Your task to perform on an android device: install app "McDonald's" Image 0: 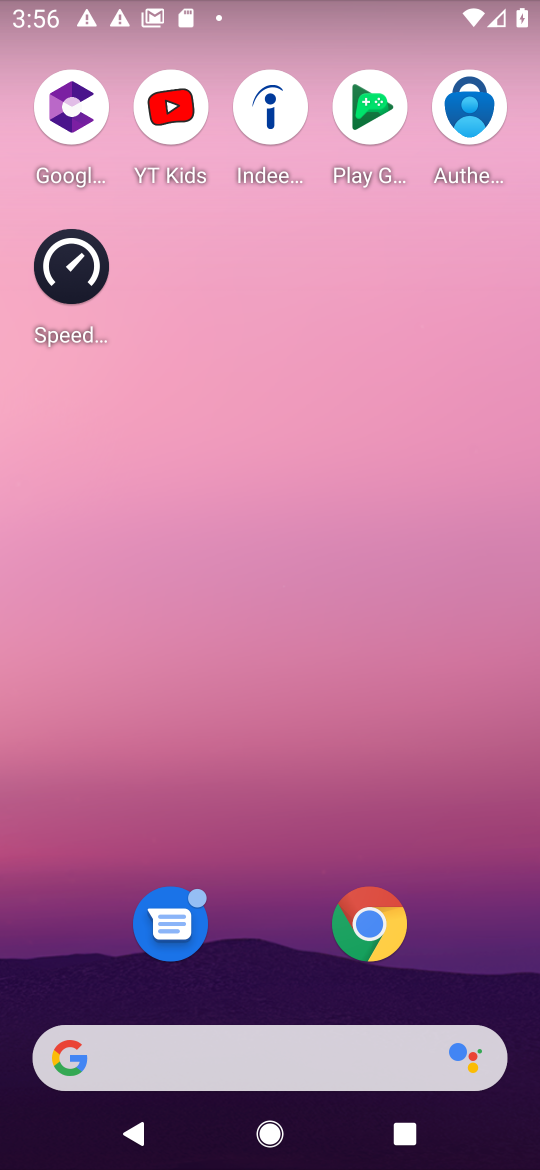
Step 0: press home button
Your task to perform on an android device: install app "McDonald's" Image 1: 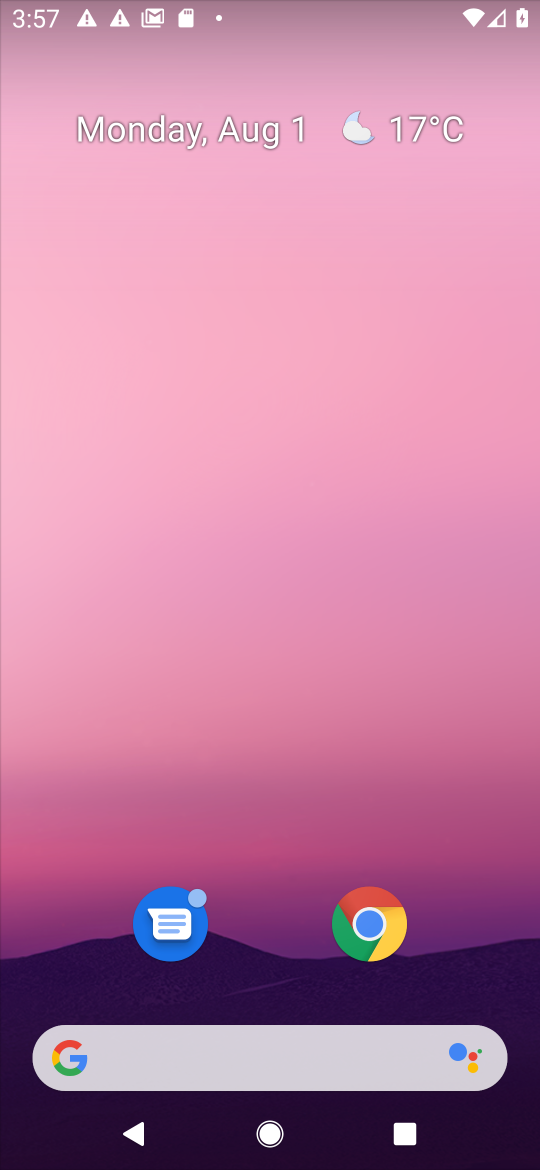
Step 1: drag from (311, 776) to (306, 104)
Your task to perform on an android device: install app "McDonald's" Image 2: 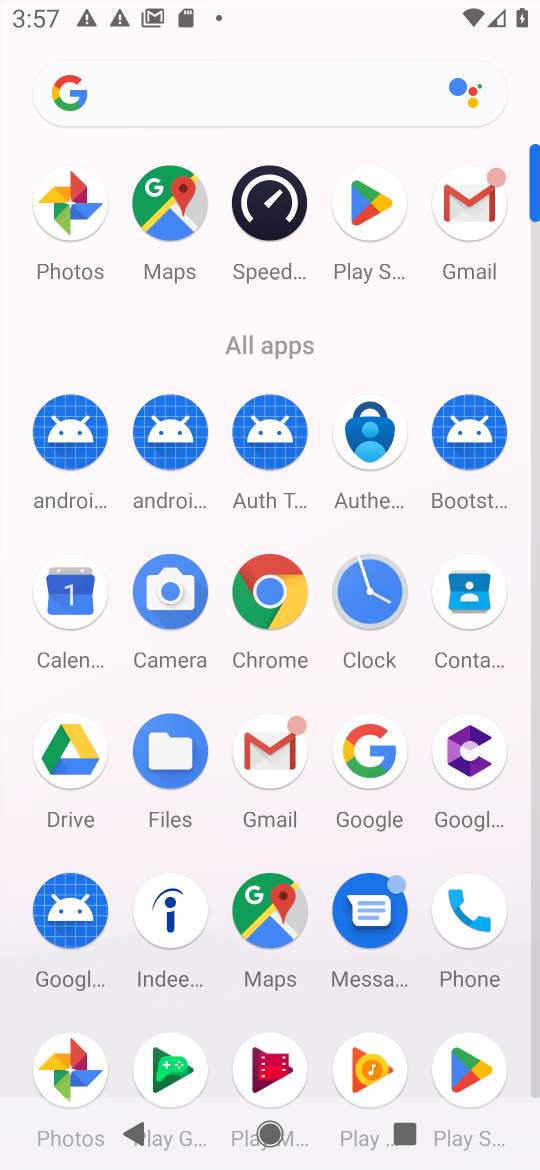
Step 2: click (367, 211)
Your task to perform on an android device: install app "McDonald's" Image 3: 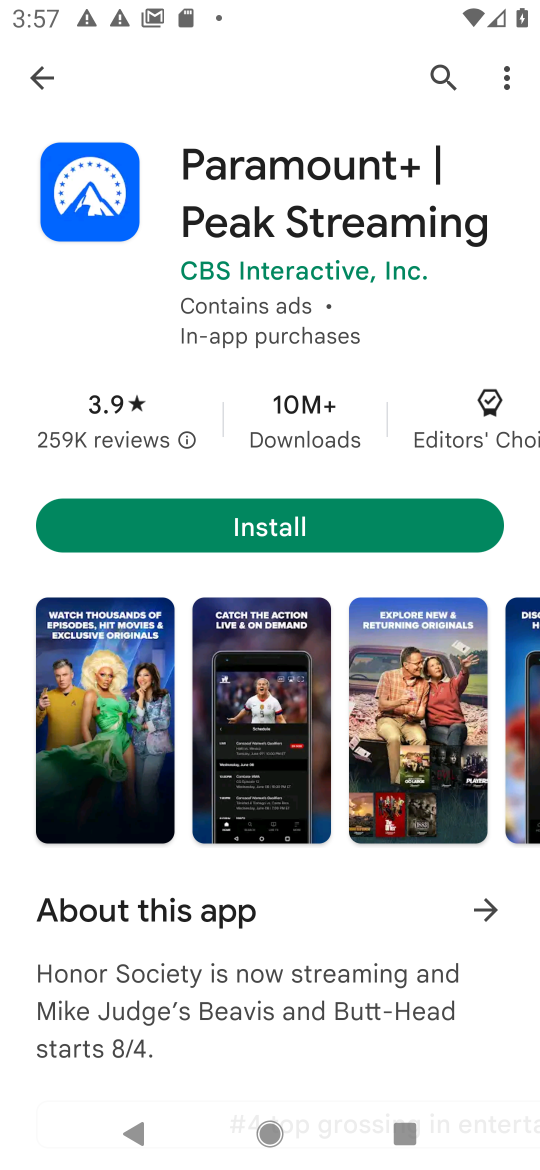
Step 3: click (442, 72)
Your task to perform on an android device: install app "McDonald's" Image 4: 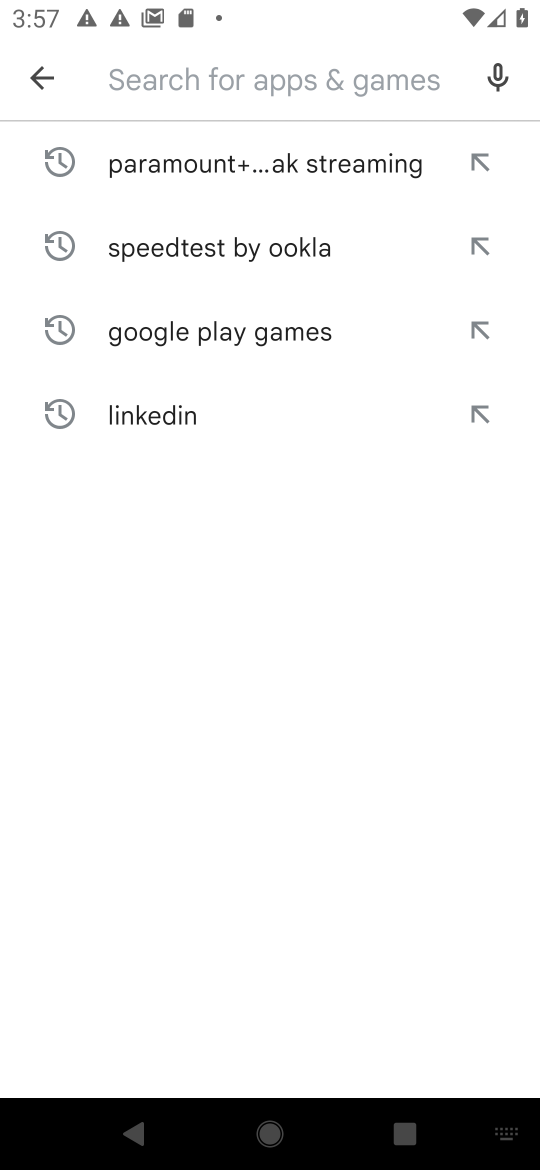
Step 4: type "McDonald's"
Your task to perform on an android device: install app "McDonald's" Image 5: 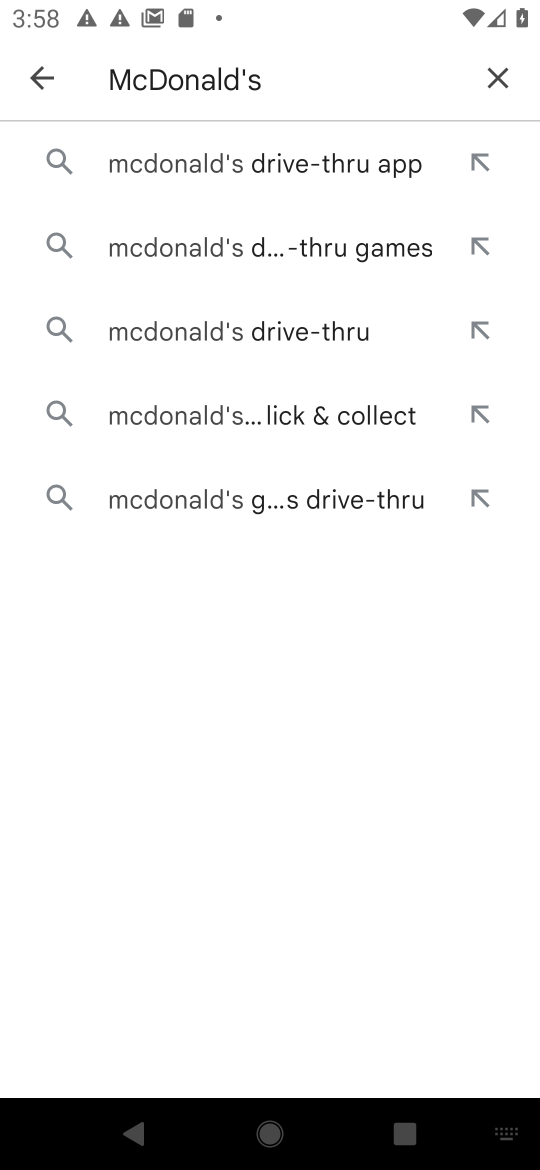
Step 5: click (172, 165)
Your task to perform on an android device: install app "McDonald's" Image 6: 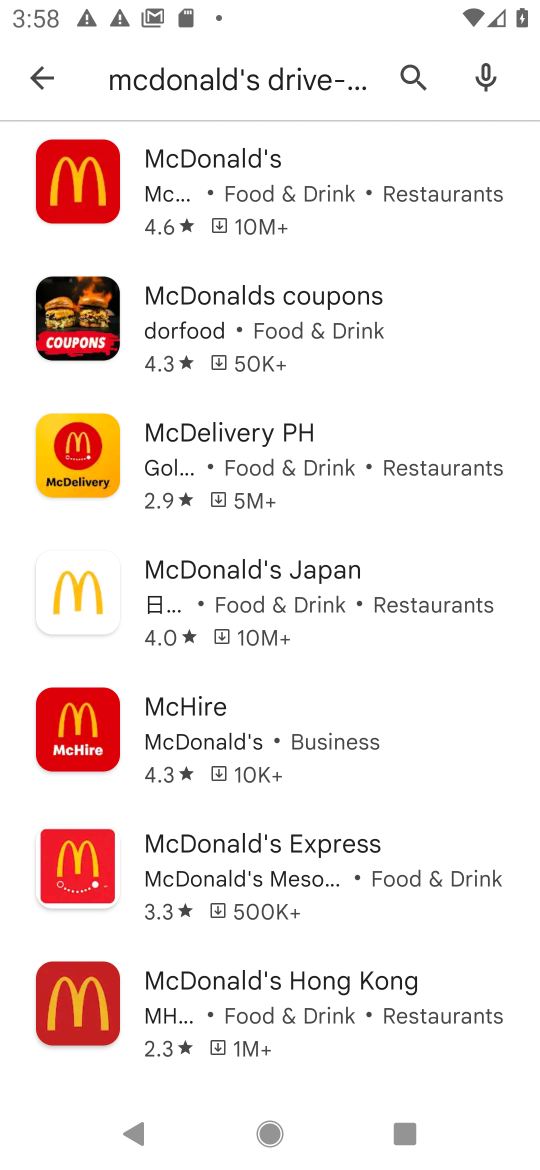
Step 6: click (175, 169)
Your task to perform on an android device: install app "McDonald's" Image 7: 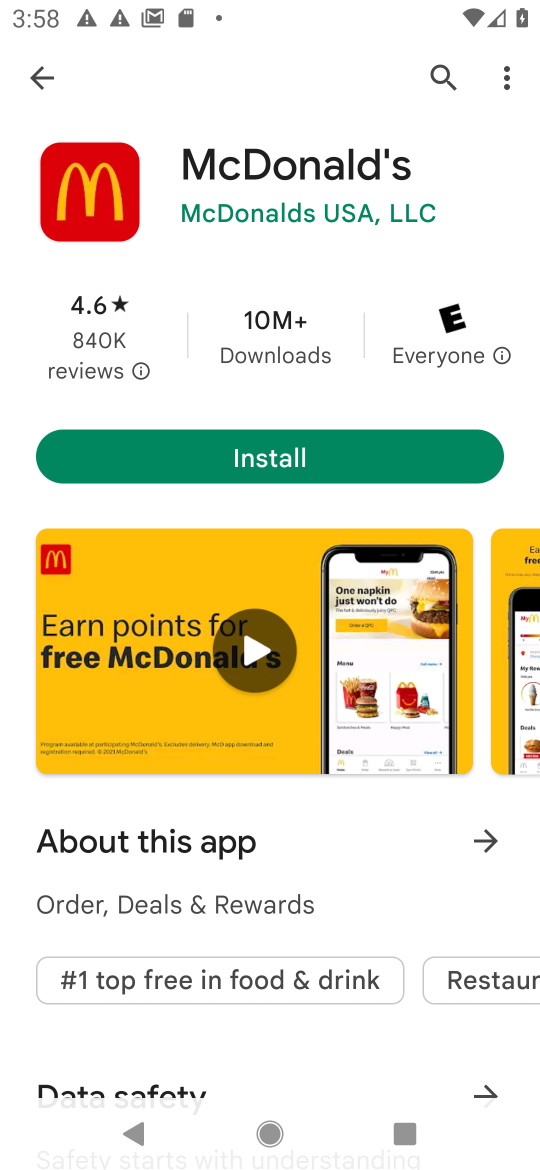
Step 7: click (258, 458)
Your task to perform on an android device: install app "McDonald's" Image 8: 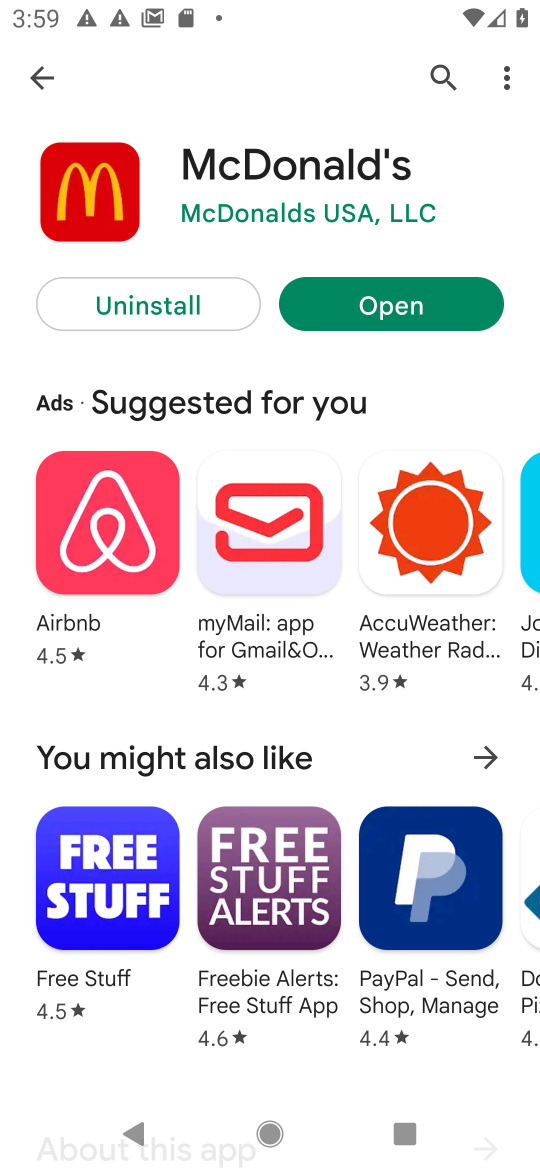
Step 8: task complete